Your task to perform on an android device: toggle translation in the chrome app Image 0: 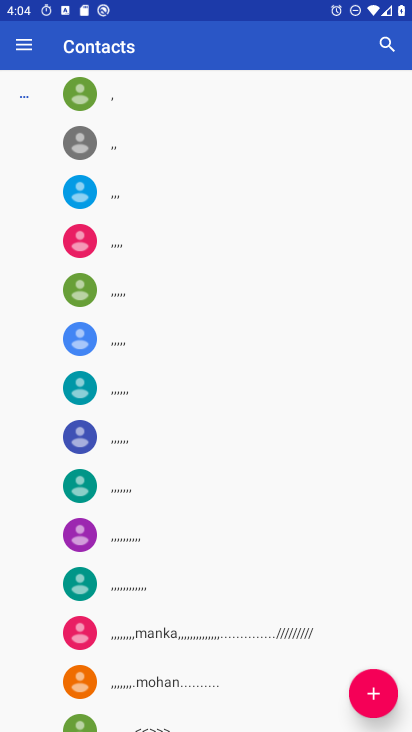
Step 0: press home button
Your task to perform on an android device: toggle translation in the chrome app Image 1: 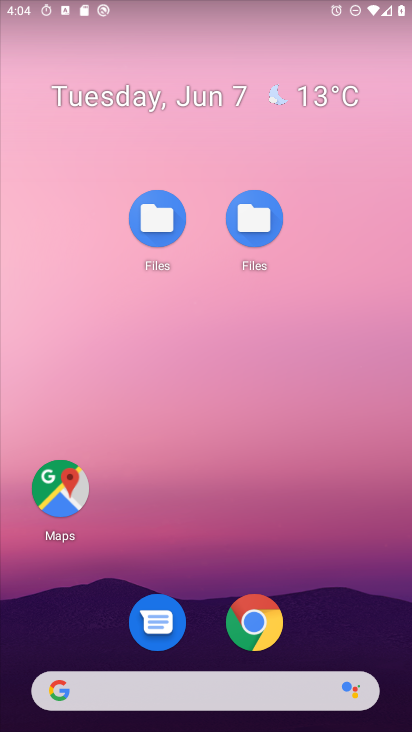
Step 1: click (250, 627)
Your task to perform on an android device: toggle translation in the chrome app Image 2: 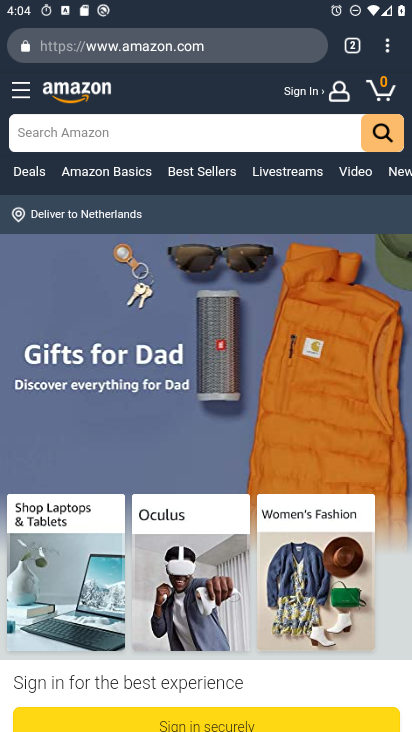
Step 2: click (382, 46)
Your task to perform on an android device: toggle translation in the chrome app Image 3: 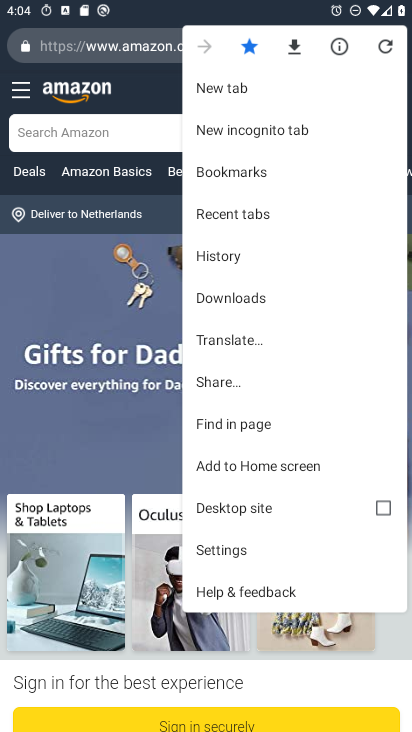
Step 3: click (249, 325)
Your task to perform on an android device: toggle translation in the chrome app Image 4: 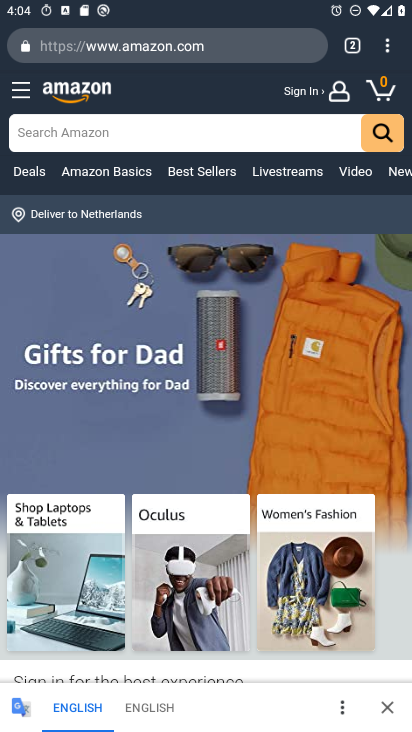
Step 4: click (135, 707)
Your task to perform on an android device: toggle translation in the chrome app Image 5: 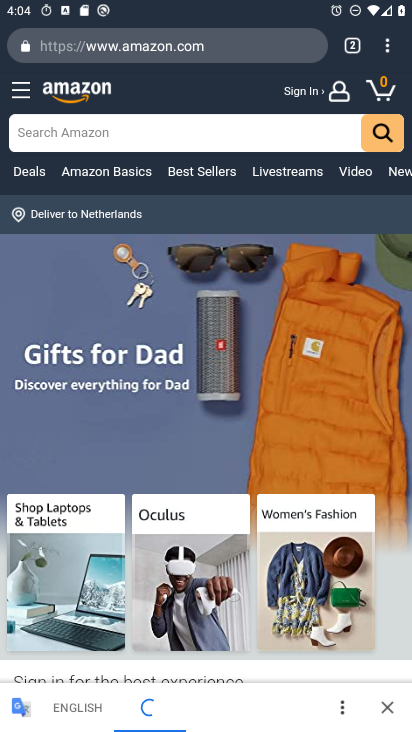
Step 5: click (334, 700)
Your task to perform on an android device: toggle translation in the chrome app Image 6: 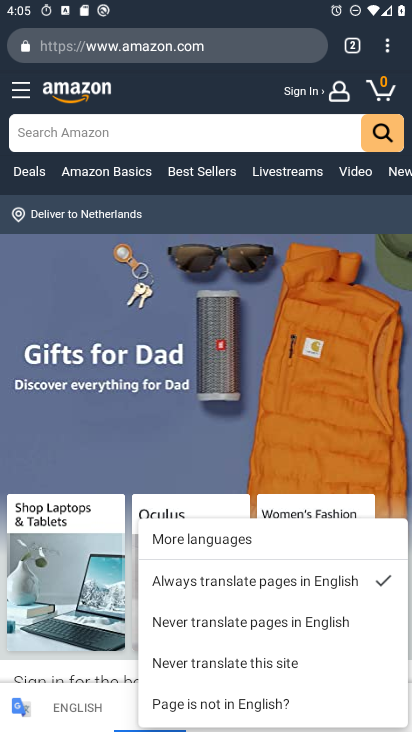
Step 6: click (260, 670)
Your task to perform on an android device: toggle translation in the chrome app Image 7: 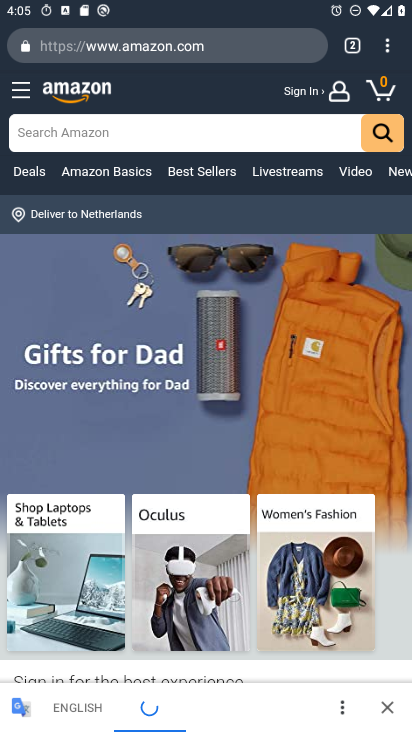
Step 7: task complete